Your task to perform on an android device: open app "Move to iOS" Image 0: 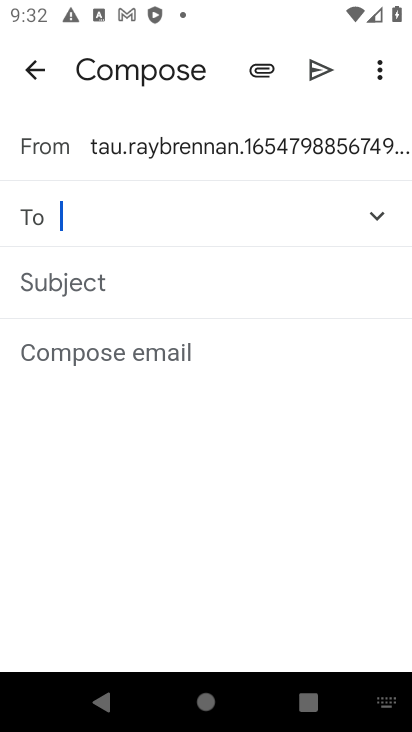
Step 0: press home button
Your task to perform on an android device: open app "Move to iOS" Image 1: 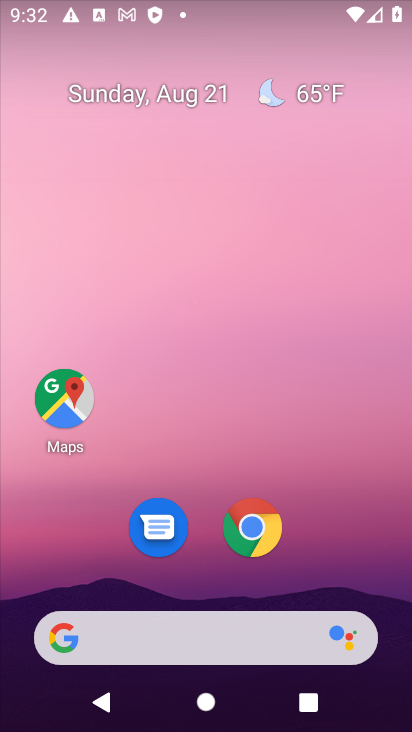
Step 1: drag from (179, 485) to (223, 5)
Your task to perform on an android device: open app "Move to iOS" Image 2: 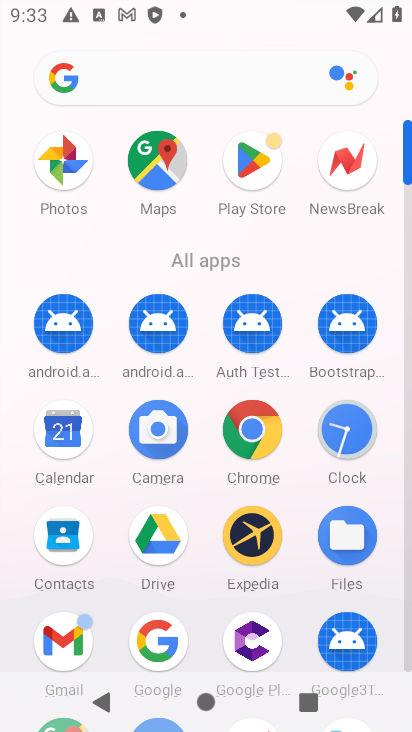
Step 2: click (256, 176)
Your task to perform on an android device: open app "Move to iOS" Image 3: 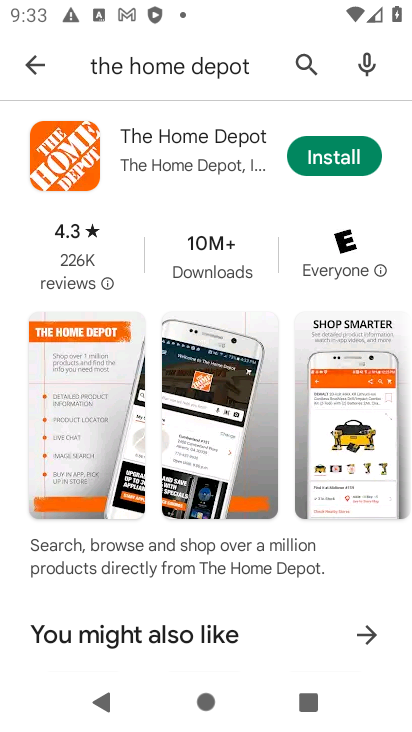
Step 3: click (230, 67)
Your task to perform on an android device: open app "Move to iOS" Image 4: 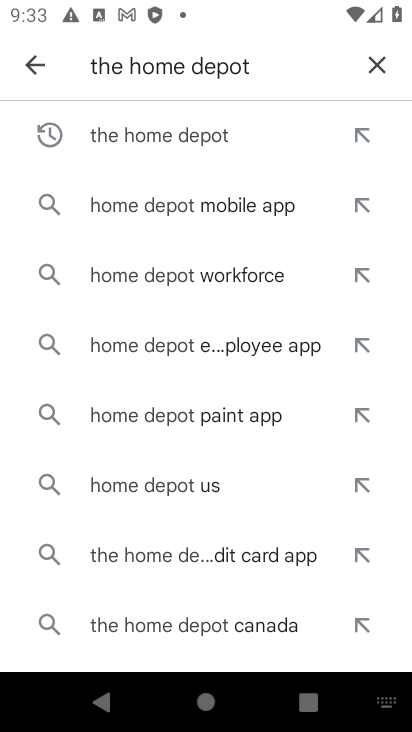
Step 4: click (374, 59)
Your task to perform on an android device: open app "Move to iOS" Image 5: 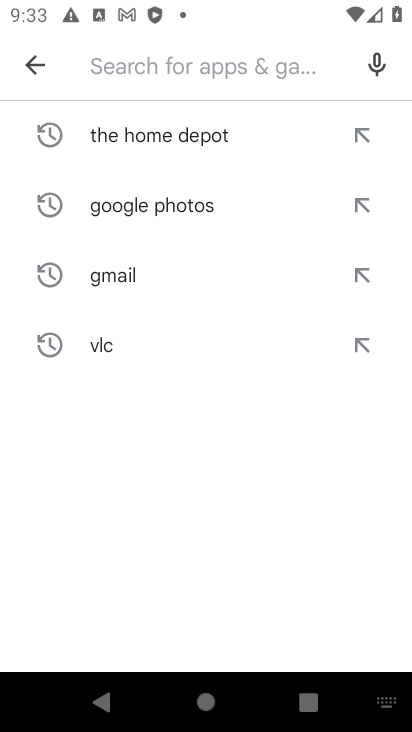
Step 5: type "Move to IOS"
Your task to perform on an android device: open app "Move to iOS" Image 6: 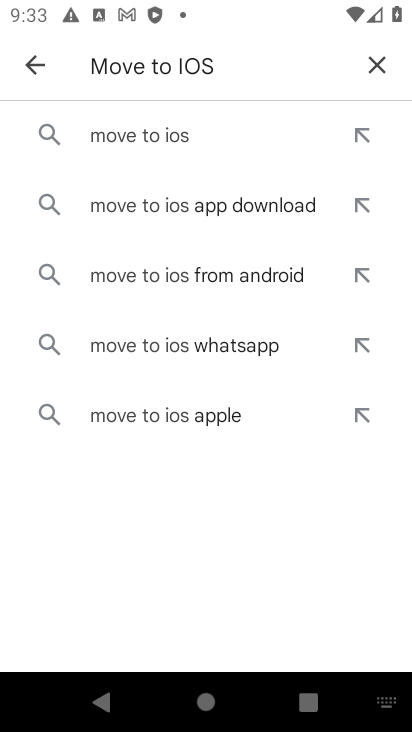
Step 6: click (148, 147)
Your task to perform on an android device: open app "Move to iOS" Image 7: 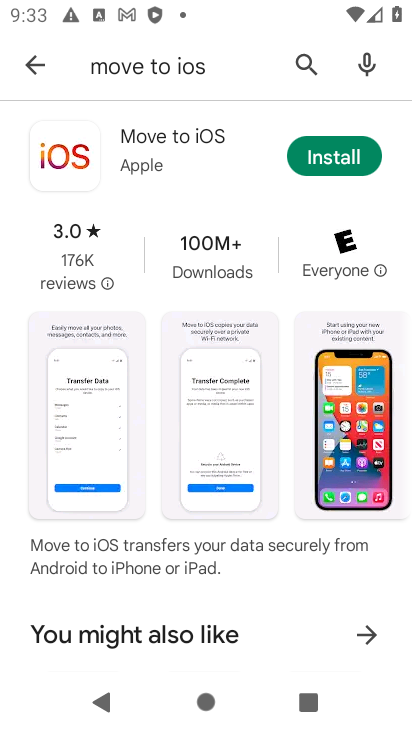
Step 7: task complete